Your task to perform on an android device: Open network settings Image 0: 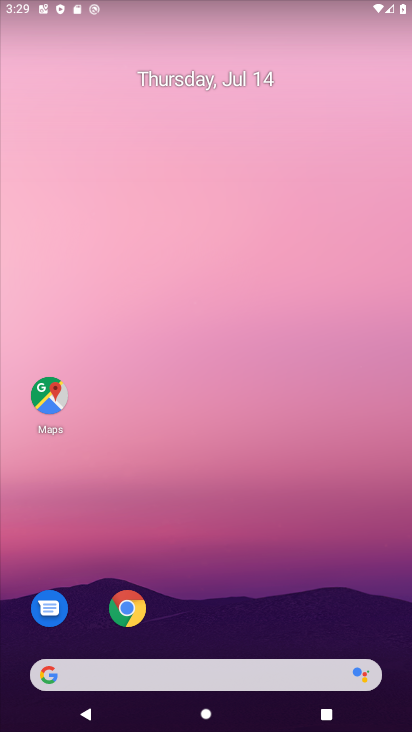
Step 0: press home button
Your task to perform on an android device: Open network settings Image 1: 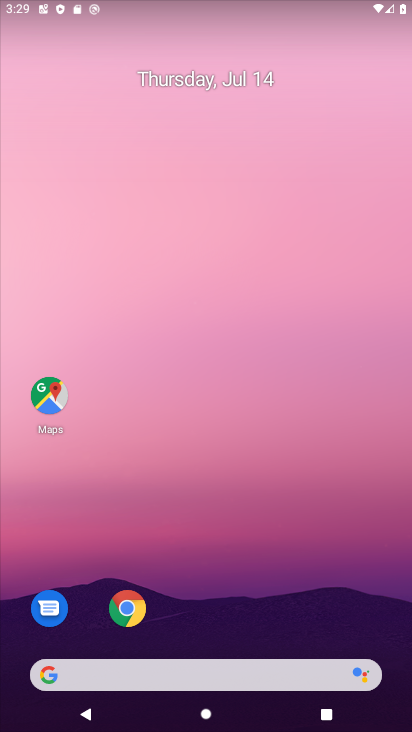
Step 1: drag from (38, 596) to (252, 61)
Your task to perform on an android device: Open network settings Image 2: 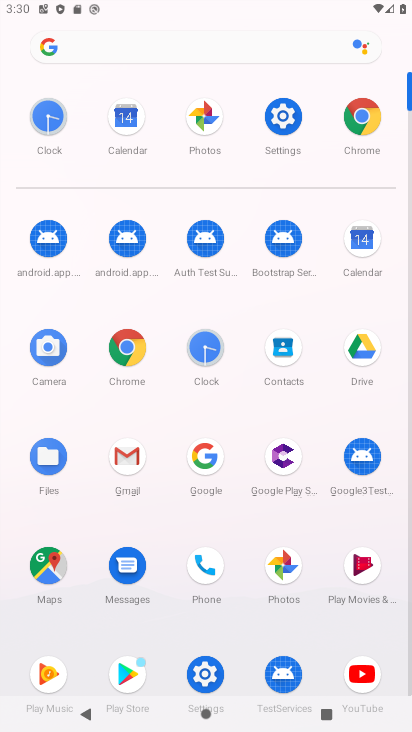
Step 2: click (278, 125)
Your task to perform on an android device: Open network settings Image 3: 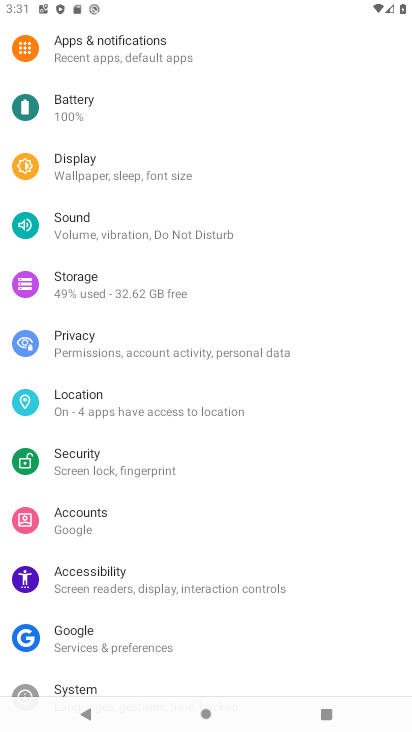
Step 3: drag from (149, 106) to (109, 570)
Your task to perform on an android device: Open network settings Image 4: 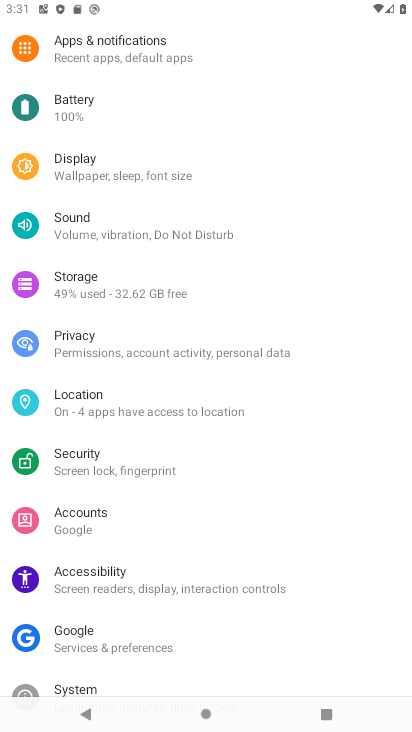
Step 4: drag from (225, 60) to (188, 550)
Your task to perform on an android device: Open network settings Image 5: 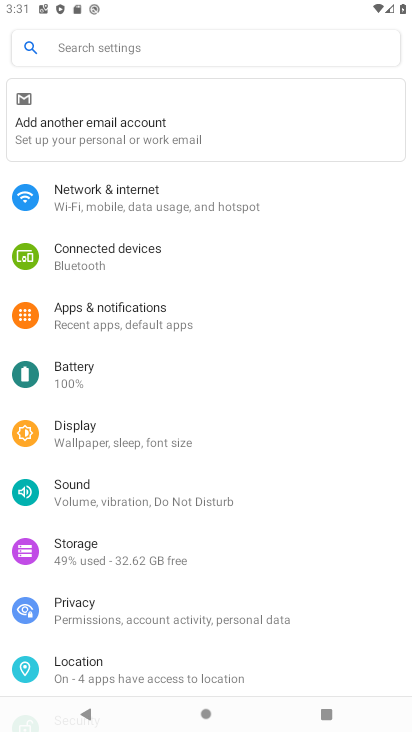
Step 5: click (136, 200)
Your task to perform on an android device: Open network settings Image 6: 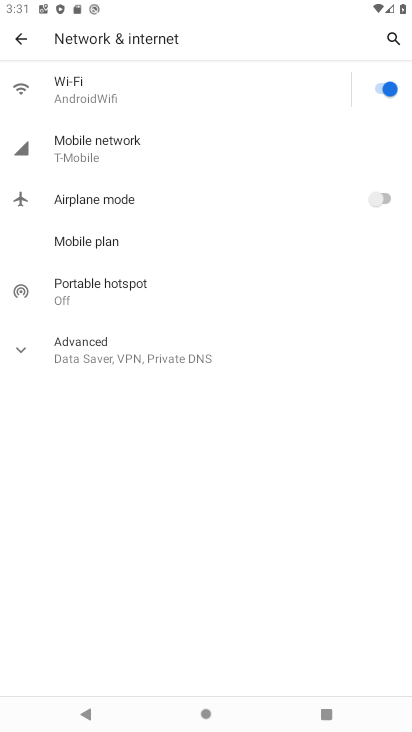
Step 6: click (131, 143)
Your task to perform on an android device: Open network settings Image 7: 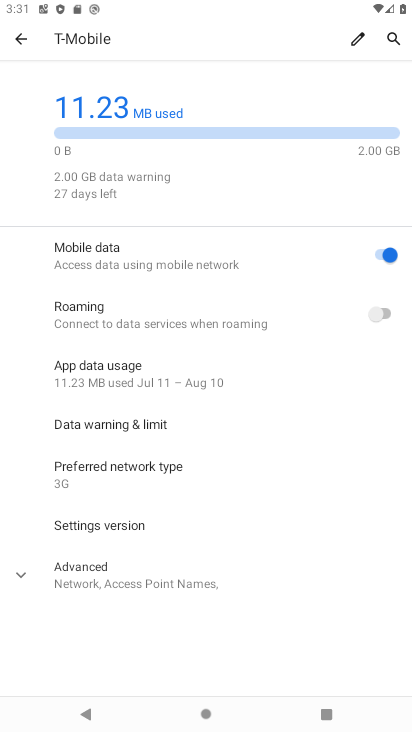
Step 7: task complete